Your task to perform on an android device: open app "Messenger Lite" (install if not already installed) and enter user name: "cataclysmic@outlook.com" and password: "victoriously" Image 0: 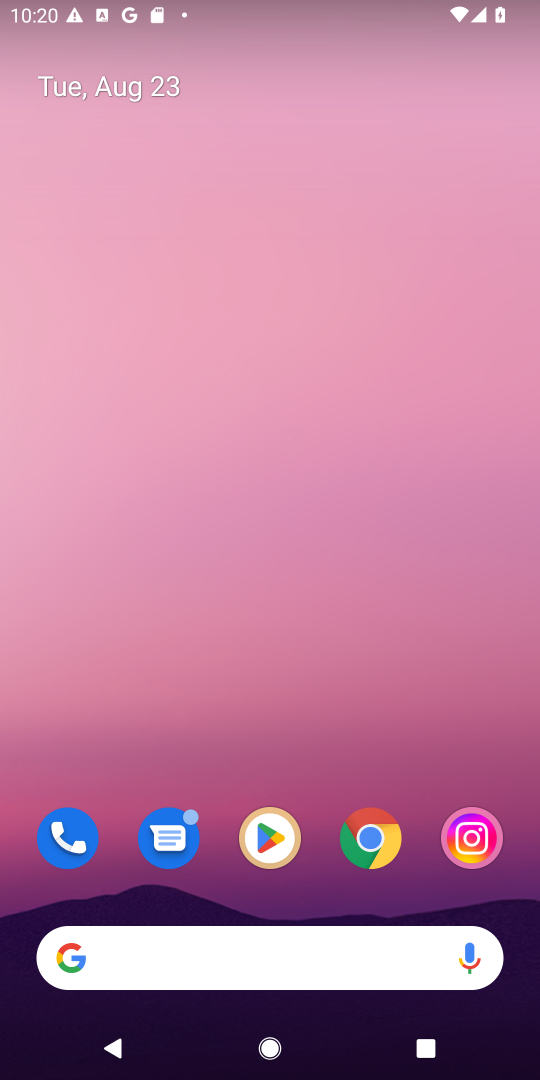
Step 0: click (258, 844)
Your task to perform on an android device: open app "Messenger Lite" (install if not already installed) and enter user name: "cataclysmic@outlook.com" and password: "victoriously" Image 1: 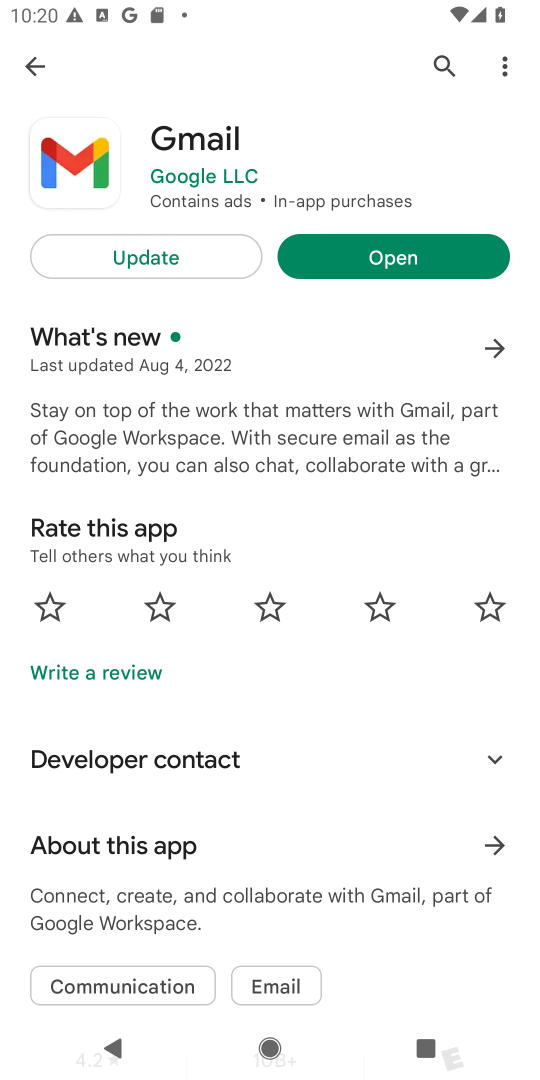
Step 1: click (437, 66)
Your task to perform on an android device: open app "Messenger Lite" (install if not already installed) and enter user name: "cataclysmic@outlook.com" and password: "victoriously" Image 2: 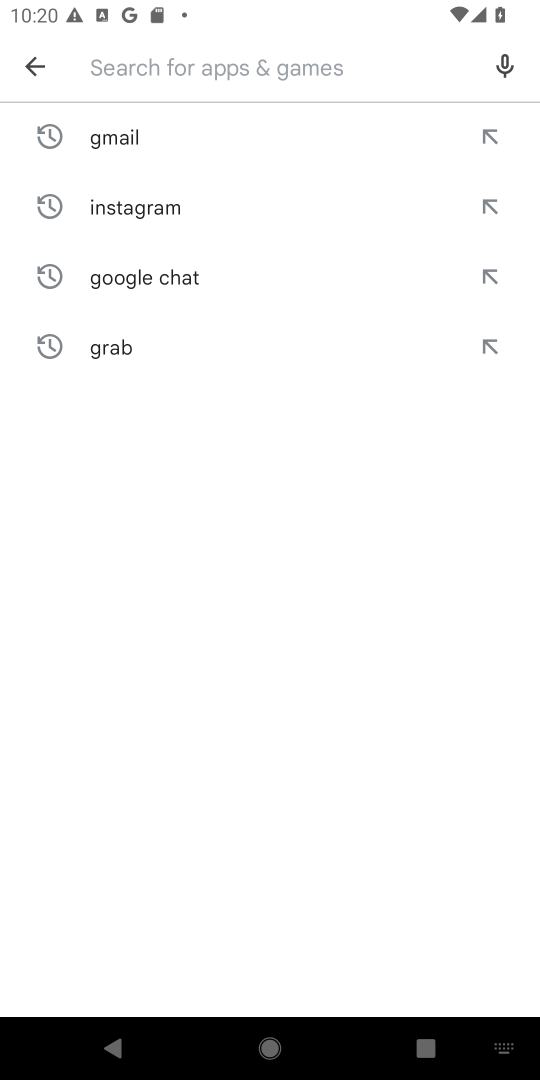
Step 2: type "Messenger Lite"
Your task to perform on an android device: open app "Messenger Lite" (install if not already installed) and enter user name: "cataclysmic@outlook.com" and password: "victoriously" Image 3: 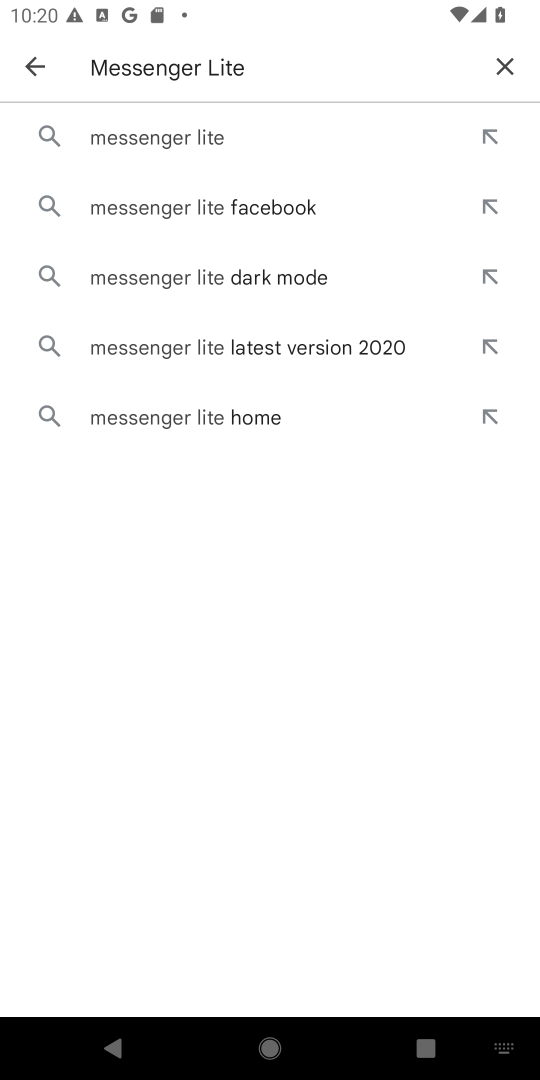
Step 3: click (220, 139)
Your task to perform on an android device: open app "Messenger Lite" (install if not already installed) and enter user name: "cataclysmic@outlook.com" and password: "victoriously" Image 4: 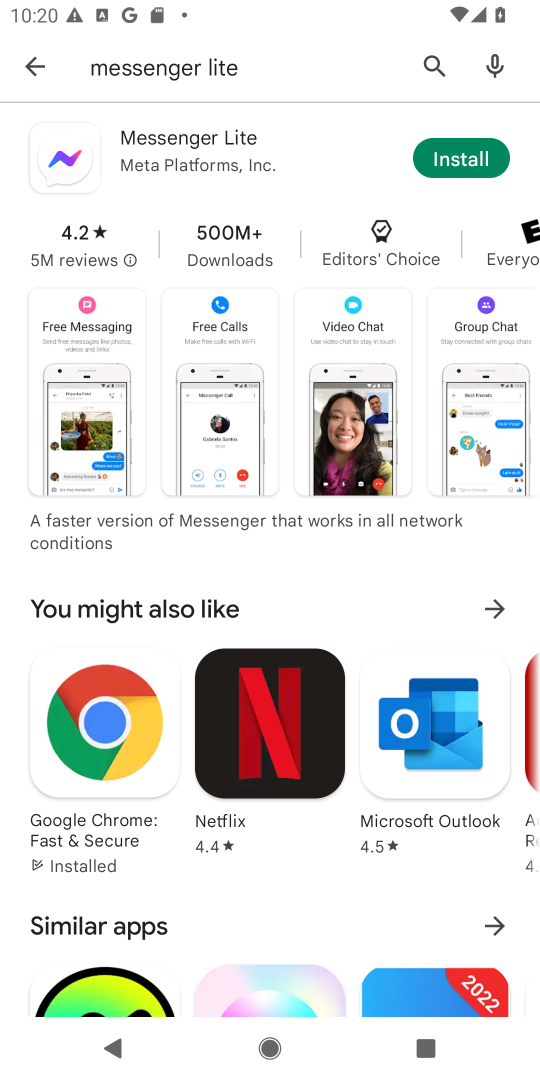
Step 4: click (485, 148)
Your task to perform on an android device: open app "Messenger Lite" (install if not already installed) and enter user name: "cataclysmic@outlook.com" and password: "victoriously" Image 5: 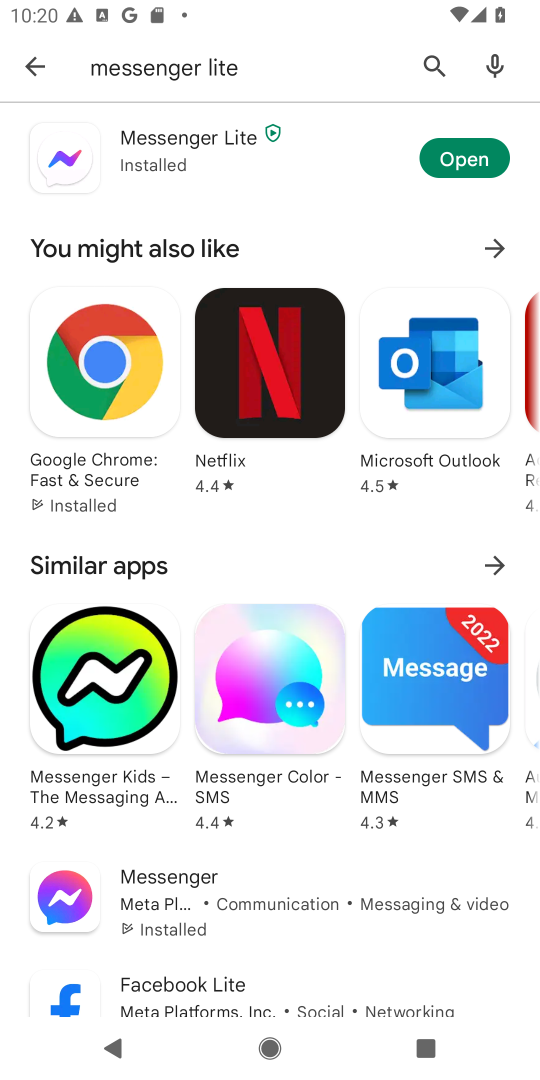
Step 5: click (485, 148)
Your task to perform on an android device: open app "Messenger Lite" (install if not already installed) and enter user name: "cataclysmic@outlook.com" and password: "victoriously" Image 6: 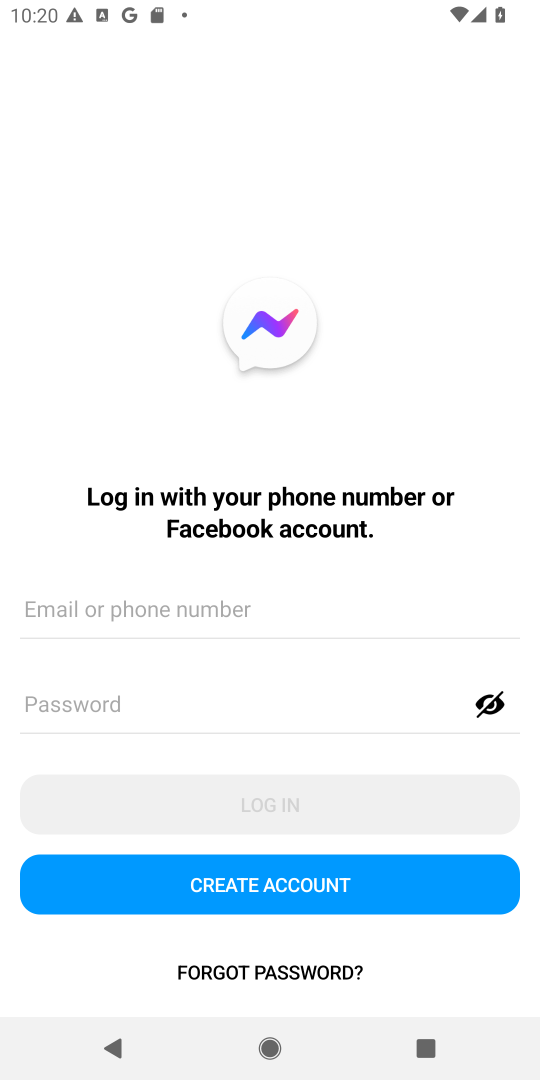
Step 6: task complete